Your task to perform on an android device: Is it going to rain this weekend? Image 0: 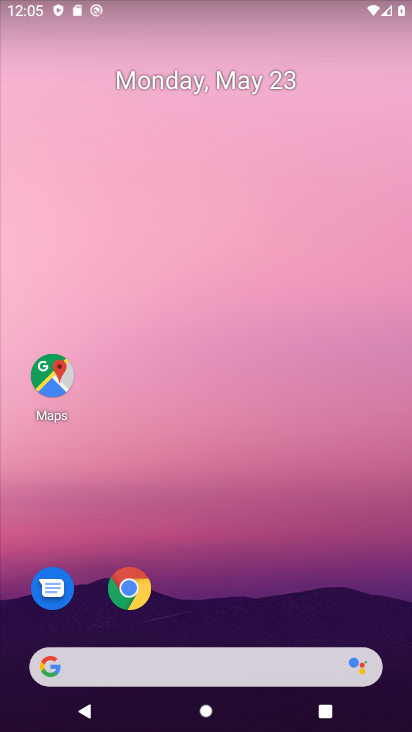
Step 0: drag from (234, 651) to (235, 92)
Your task to perform on an android device: Is it going to rain this weekend? Image 1: 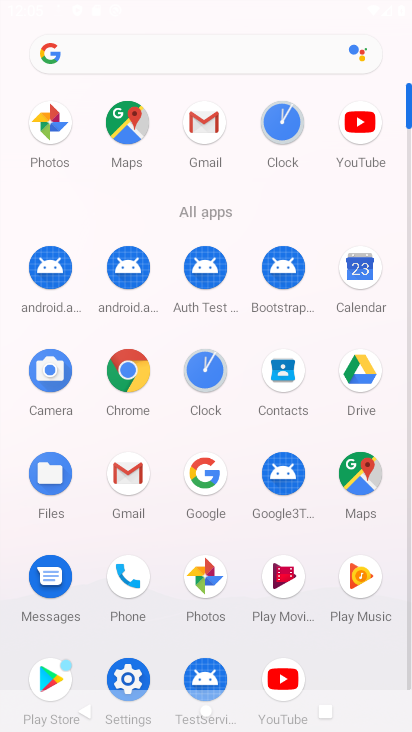
Step 1: click (199, 476)
Your task to perform on an android device: Is it going to rain this weekend? Image 2: 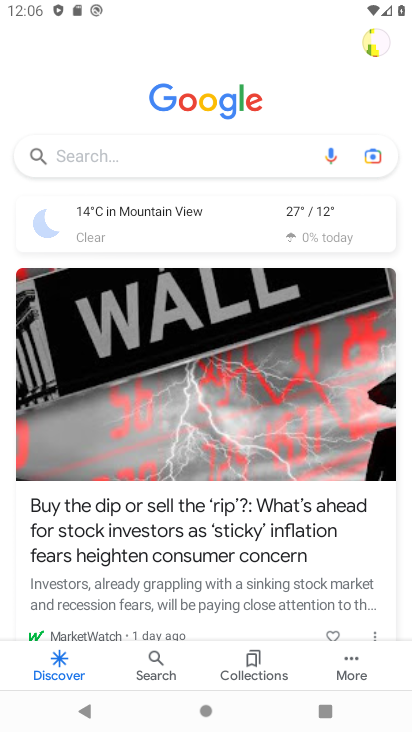
Step 2: click (123, 212)
Your task to perform on an android device: Is it going to rain this weekend? Image 3: 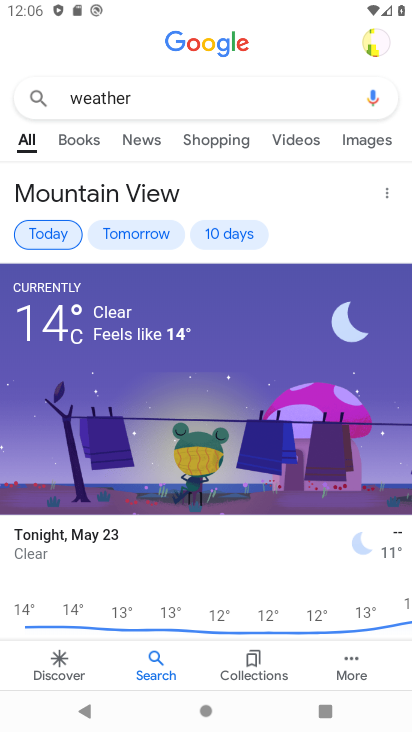
Step 3: click (235, 230)
Your task to perform on an android device: Is it going to rain this weekend? Image 4: 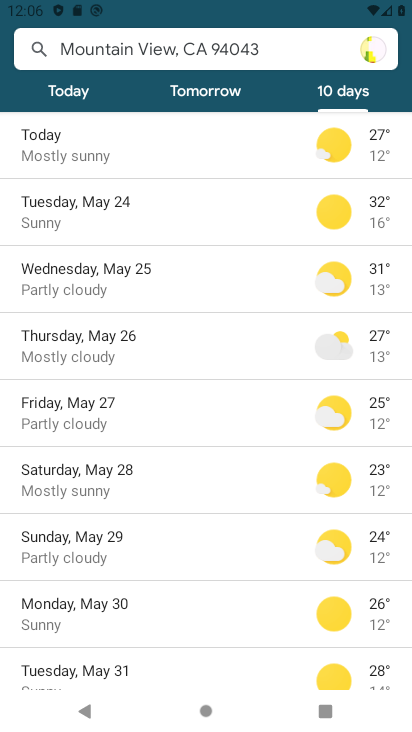
Step 4: click (64, 474)
Your task to perform on an android device: Is it going to rain this weekend? Image 5: 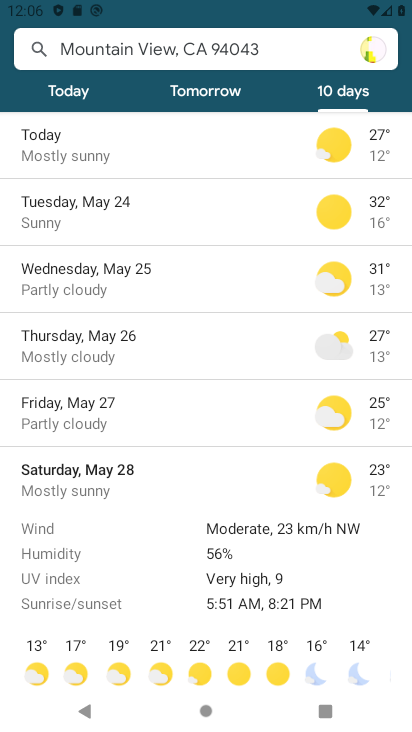
Step 5: task complete